Your task to perform on an android device: Open Yahoo.com Image 0: 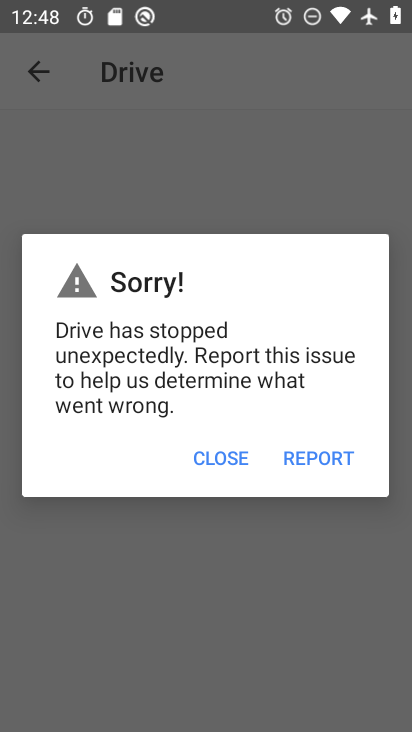
Step 0: press home button
Your task to perform on an android device: Open Yahoo.com Image 1: 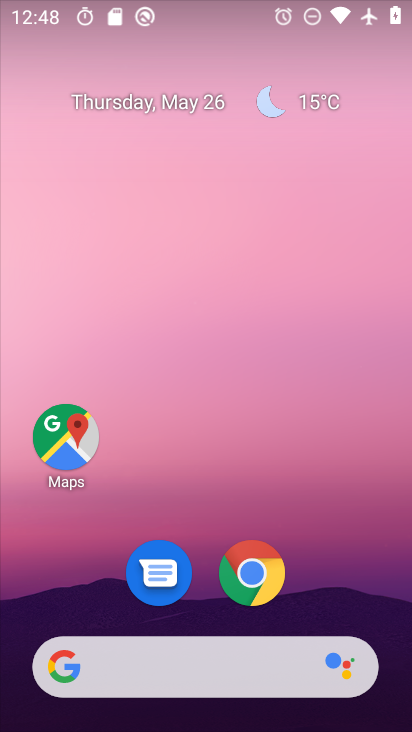
Step 1: click (254, 572)
Your task to perform on an android device: Open Yahoo.com Image 2: 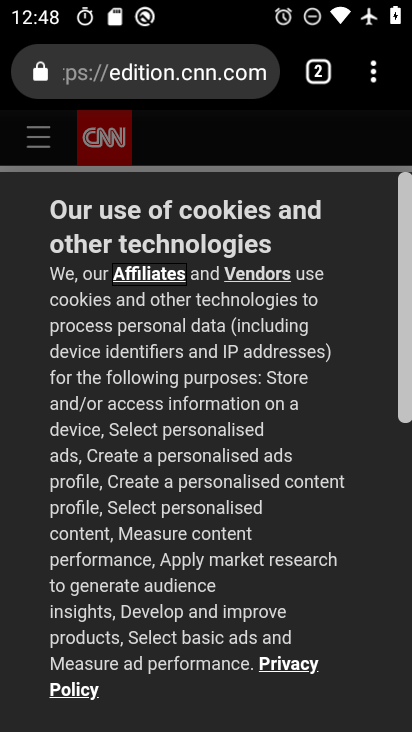
Step 2: click (124, 81)
Your task to perform on an android device: Open Yahoo.com Image 3: 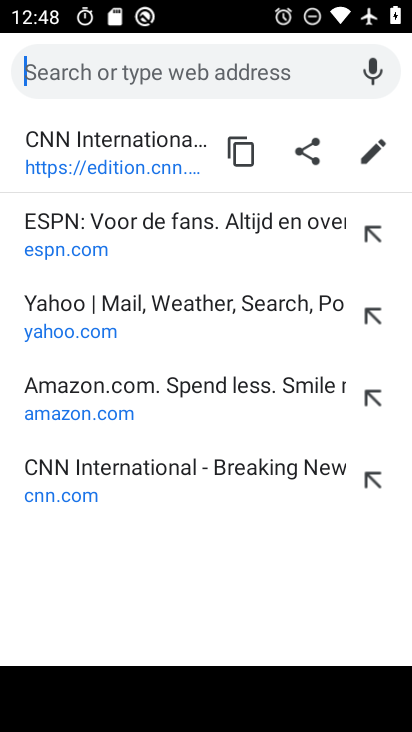
Step 3: click (67, 324)
Your task to perform on an android device: Open Yahoo.com Image 4: 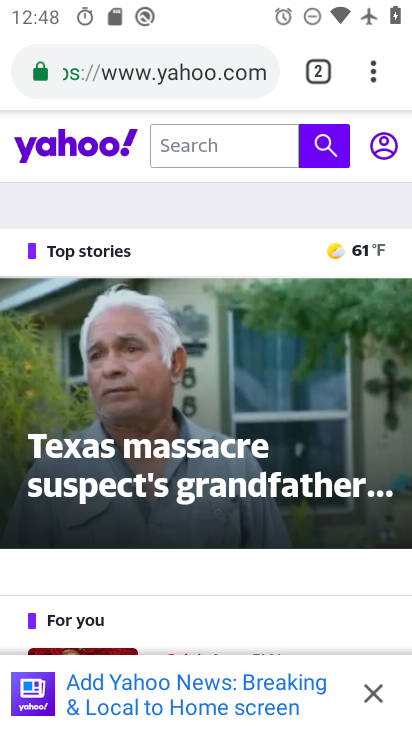
Step 4: task complete